Your task to perform on an android device: Open Youtube and go to the subscriptions tab Image 0: 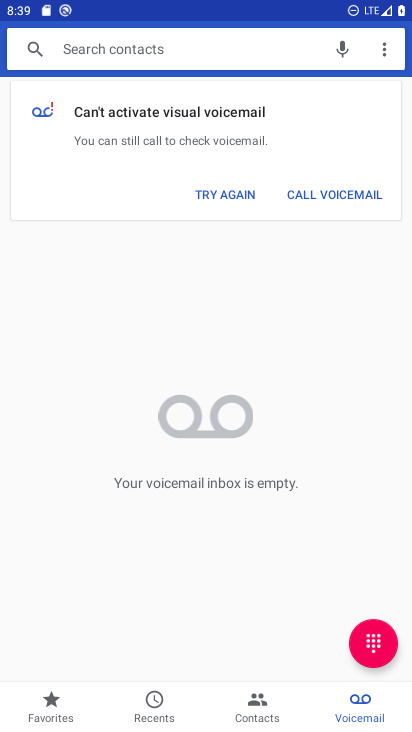
Step 0: press home button
Your task to perform on an android device: Open Youtube and go to the subscriptions tab Image 1: 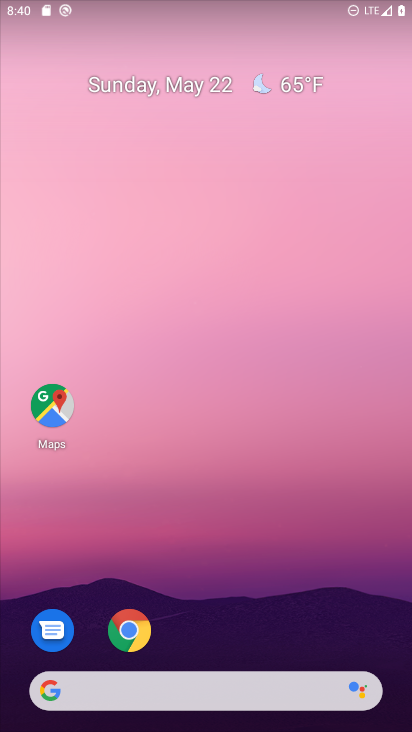
Step 1: drag from (186, 698) to (278, 227)
Your task to perform on an android device: Open Youtube and go to the subscriptions tab Image 2: 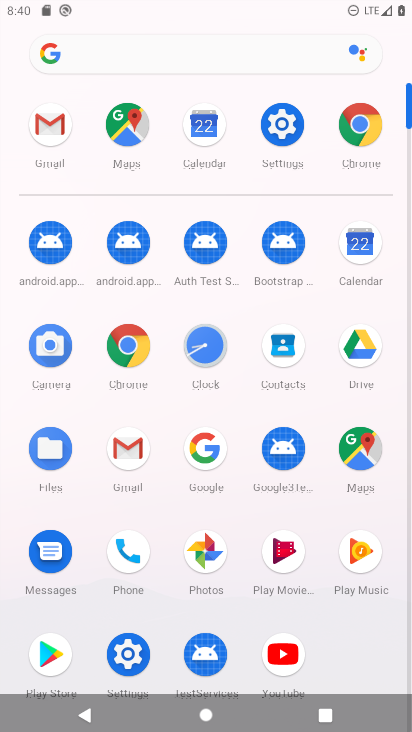
Step 2: click (280, 658)
Your task to perform on an android device: Open Youtube and go to the subscriptions tab Image 3: 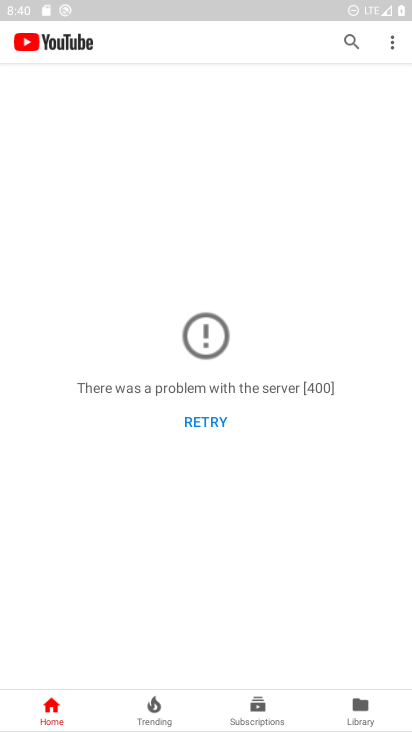
Step 3: click (199, 414)
Your task to perform on an android device: Open Youtube and go to the subscriptions tab Image 4: 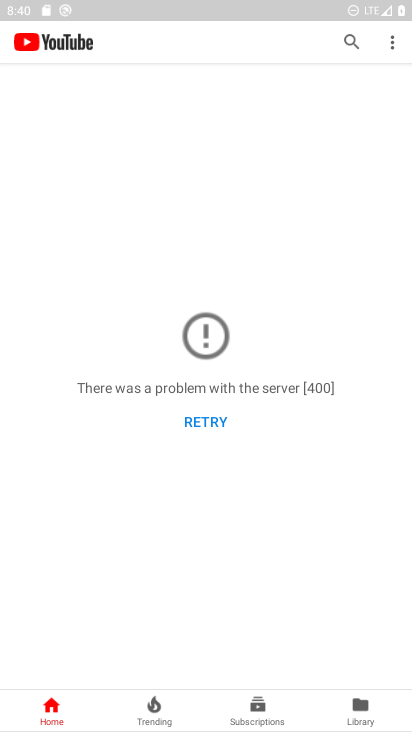
Step 4: click (205, 425)
Your task to perform on an android device: Open Youtube and go to the subscriptions tab Image 5: 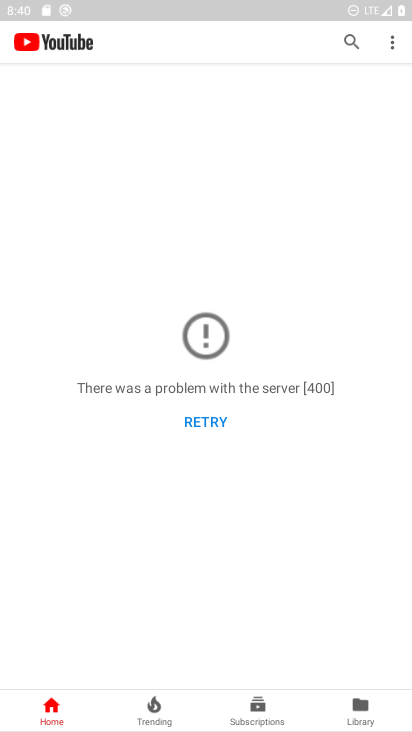
Step 5: click (209, 421)
Your task to perform on an android device: Open Youtube and go to the subscriptions tab Image 6: 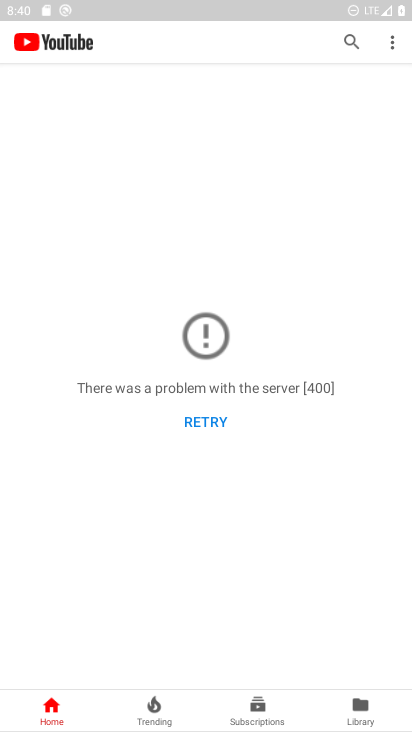
Step 6: click (209, 421)
Your task to perform on an android device: Open Youtube and go to the subscriptions tab Image 7: 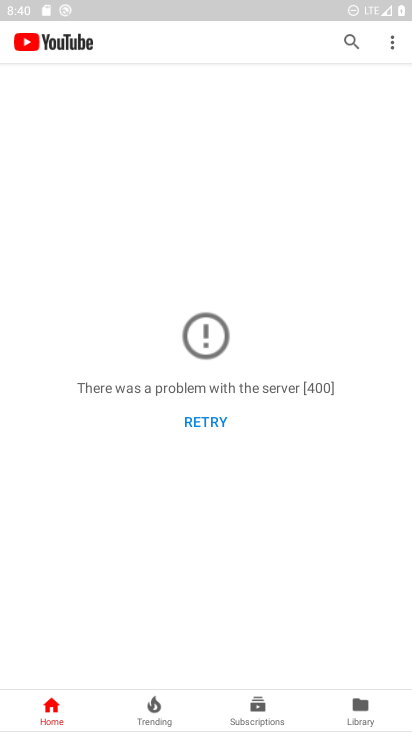
Step 7: task complete